Your task to perform on an android device: turn off improve location accuracy Image 0: 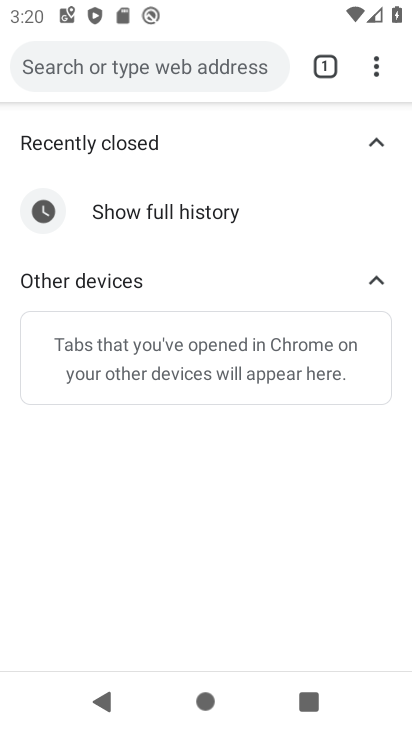
Step 0: press home button
Your task to perform on an android device: turn off improve location accuracy Image 1: 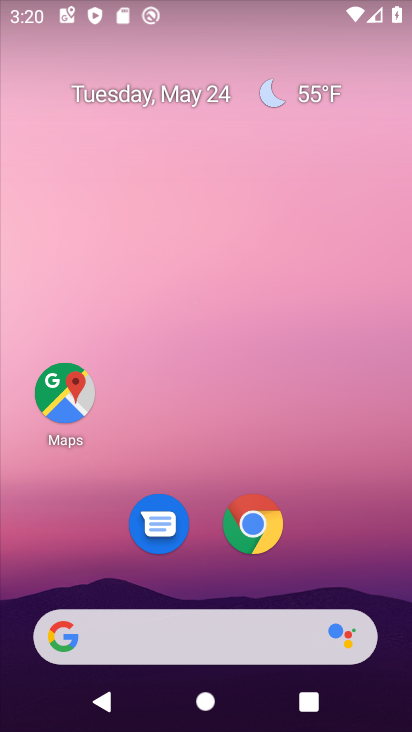
Step 1: drag from (205, 557) to (221, 38)
Your task to perform on an android device: turn off improve location accuracy Image 2: 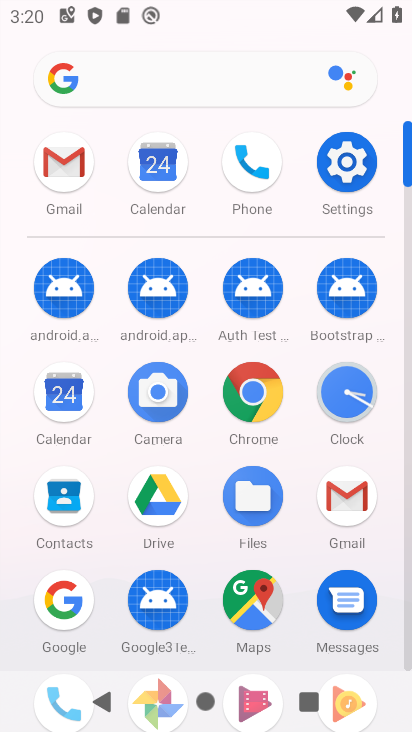
Step 2: click (346, 158)
Your task to perform on an android device: turn off improve location accuracy Image 3: 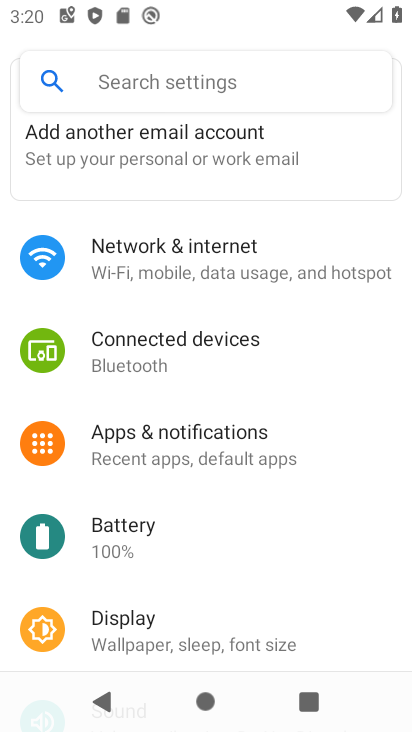
Step 3: drag from (228, 582) to (238, 51)
Your task to perform on an android device: turn off improve location accuracy Image 4: 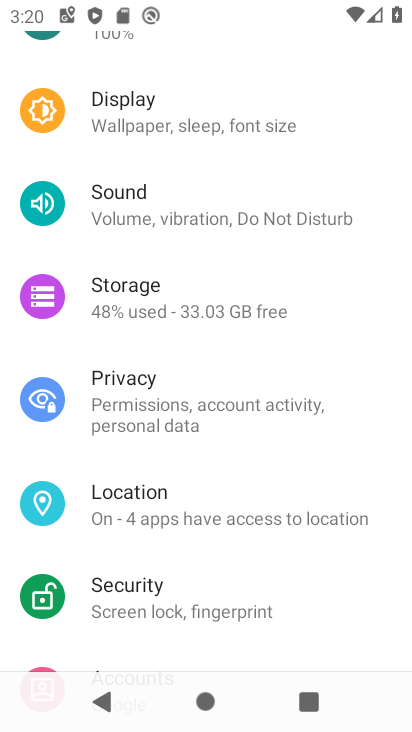
Step 4: click (210, 508)
Your task to perform on an android device: turn off improve location accuracy Image 5: 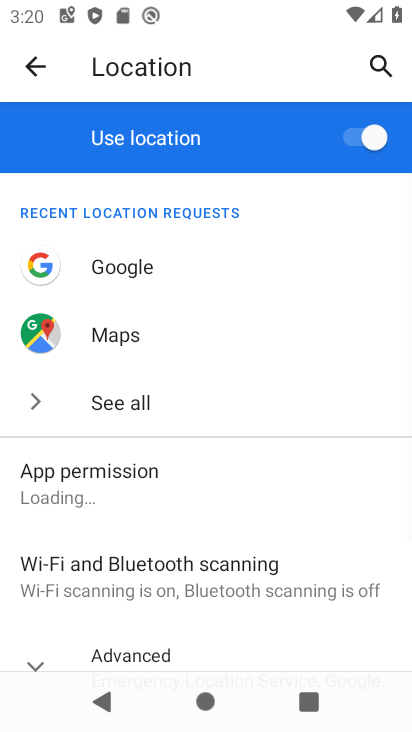
Step 5: drag from (210, 508) to (305, 37)
Your task to perform on an android device: turn off improve location accuracy Image 6: 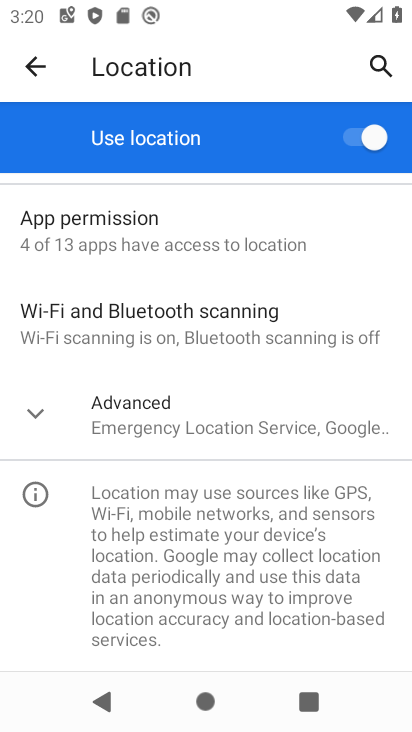
Step 6: click (38, 415)
Your task to perform on an android device: turn off improve location accuracy Image 7: 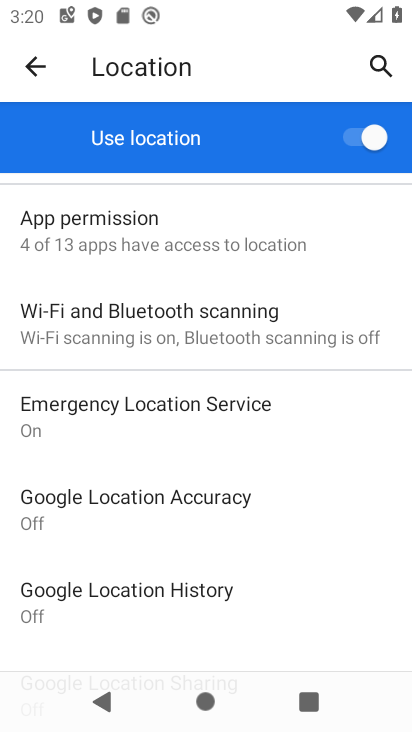
Step 7: task complete